Your task to perform on an android device: set the timer Image 0: 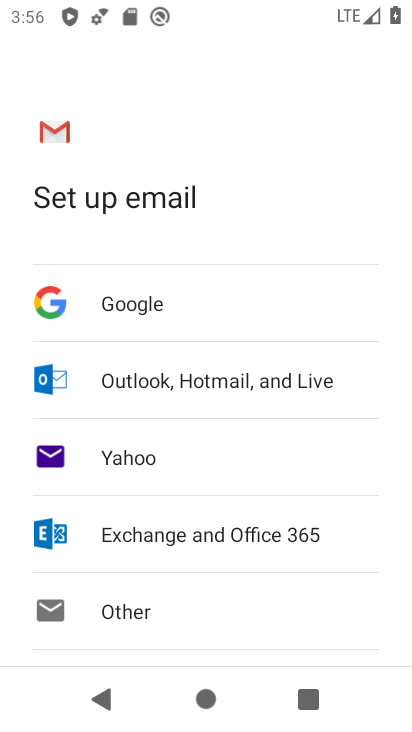
Step 0: press back button
Your task to perform on an android device: set the timer Image 1: 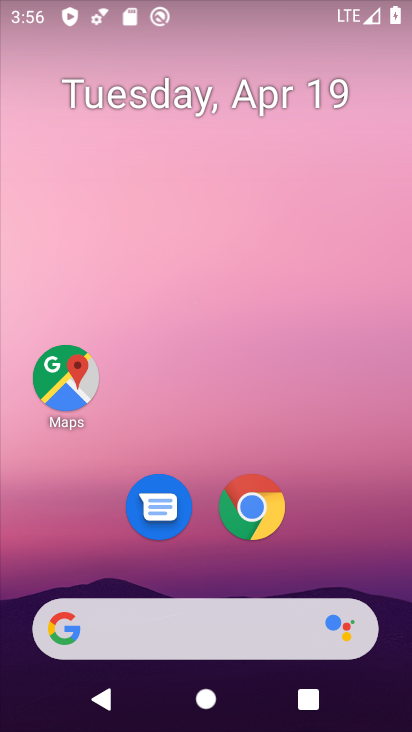
Step 1: drag from (345, 548) to (318, 133)
Your task to perform on an android device: set the timer Image 2: 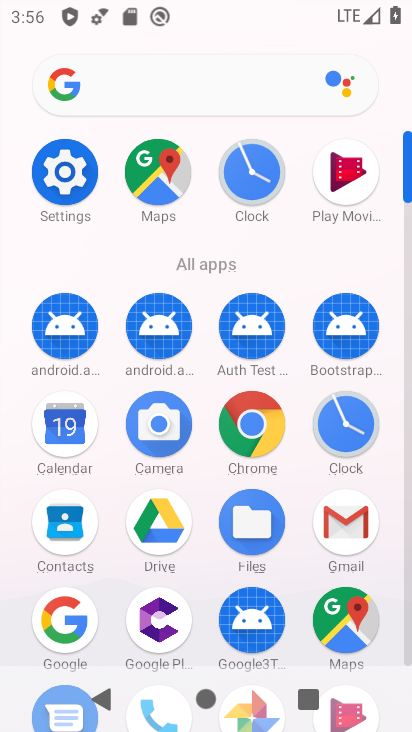
Step 2: click (338, 432)
Your task to perform on an android device: set the timer Image 3: 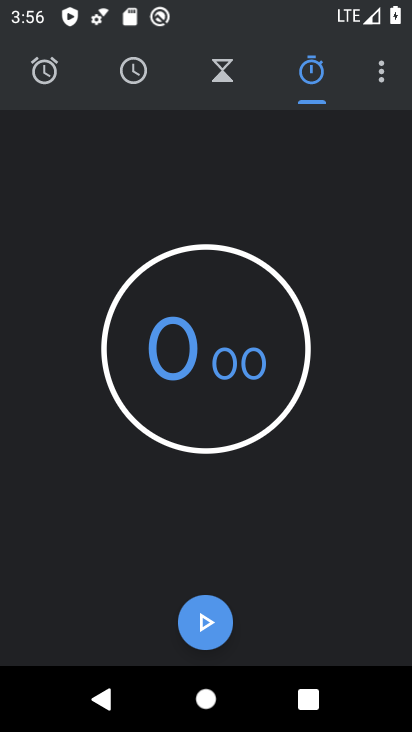
Step 3: click (220, 81)
Your task to perform on an android device: set the timer Image 4: 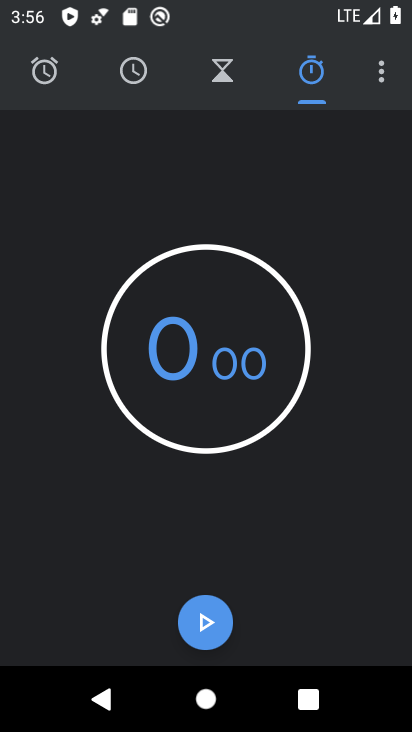
Step 4: click (220, 81)
Your task to perform on an android device: set the timer Image 5: 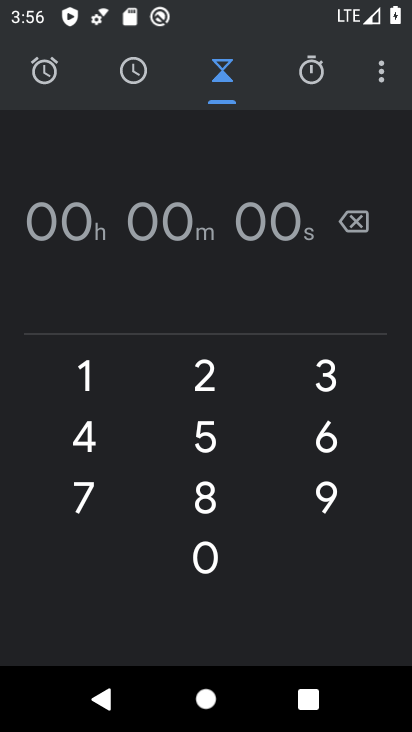
Step 5: click (71, 494)
Your task to perform on an android device: set the timer Image 6: 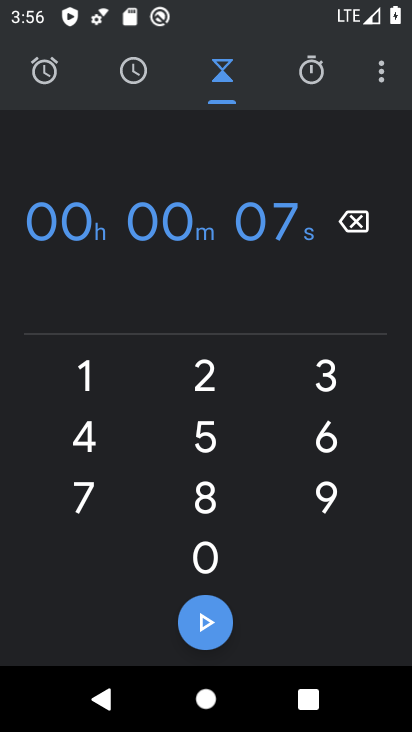
Step 6: click (183, 492)
Your task to perform on an android device: set the timer Image 7: 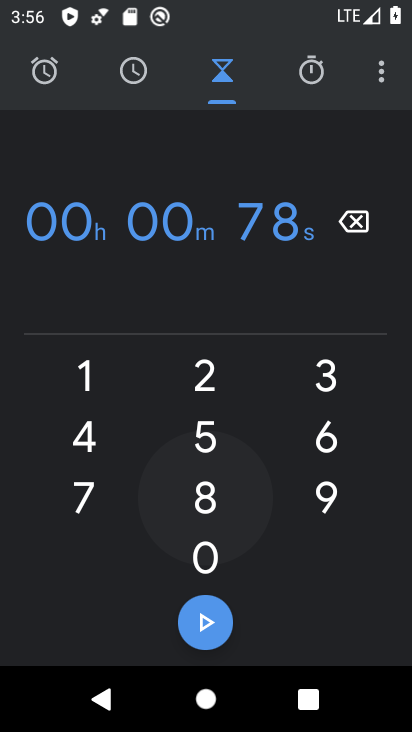
Step 7: click (197, 443)
Your task to perform on an android device: set the timer Image 8: 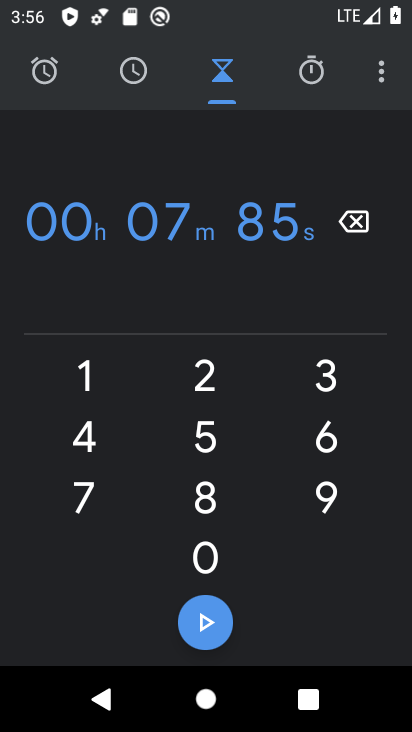
Step 8: click (295, 436)
Your task to perform on an android device: set the timer Image 9: 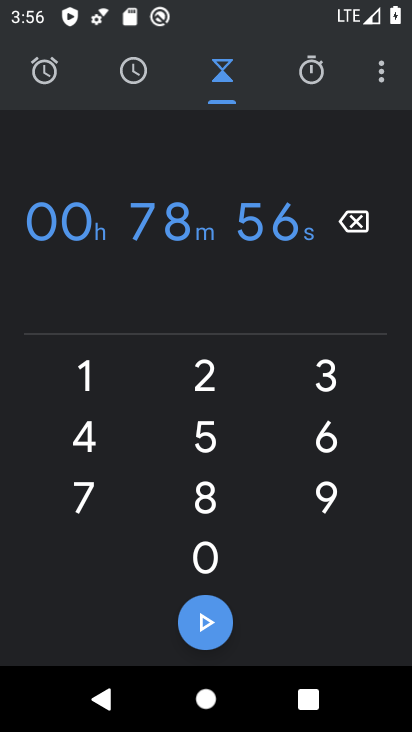
Step 9: click (312, 376)
Your task to perform on an android device: set the timer Image 10: 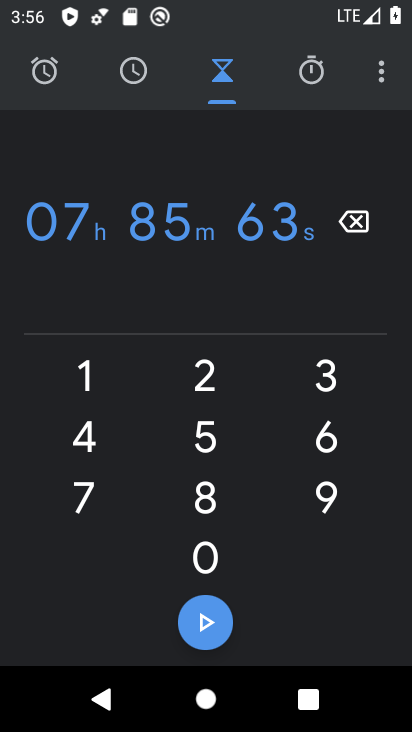
Step 10: click (112, 392)
Your task to perform on an android device: set the timer Image 11: 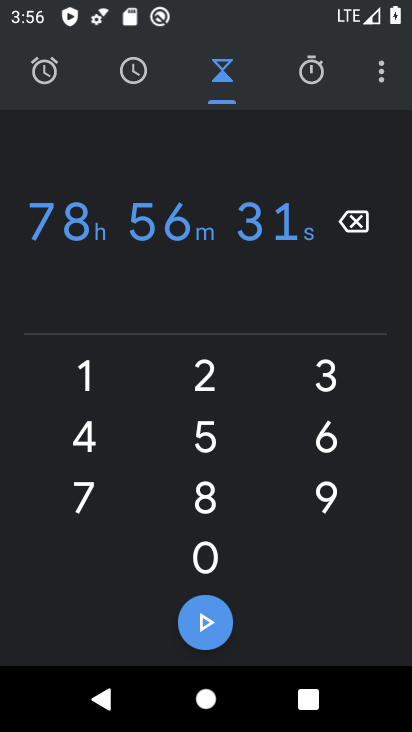
Step 11: click (212, 622)
Your task to perform on an android device: set the timer Image 12: 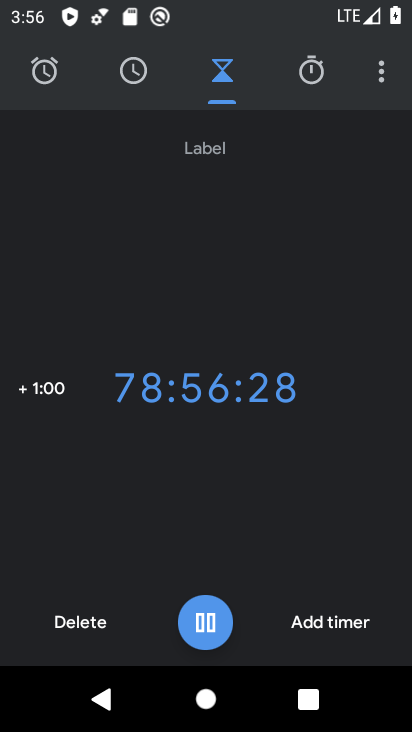
Step 12: task complete